Your task to perform on an android device: open device folders in google photos Image 0: 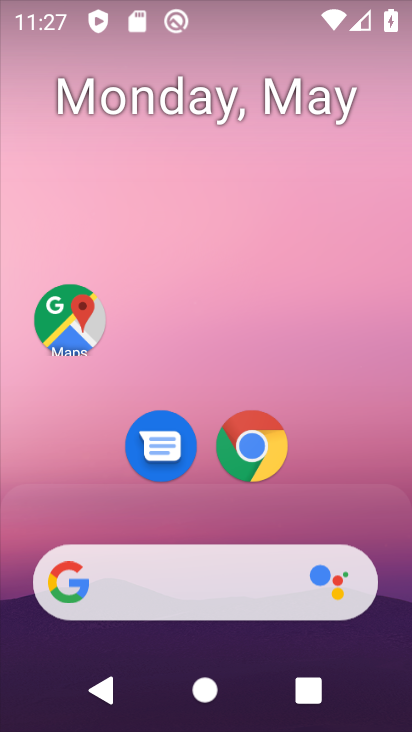
Step 0: drag from (354, 493) to (270, 47)
Your task to perform on an android device: open device folders in google photos Image 1: 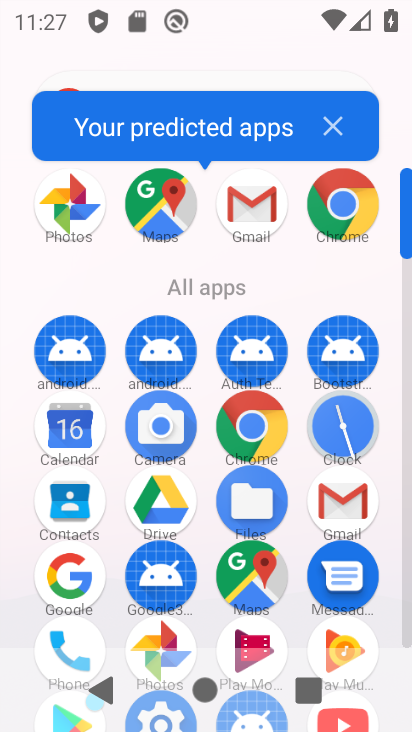
Step 1: click (69, 201)
Your task to perform on an android device: open device folders in google photos Image 2: 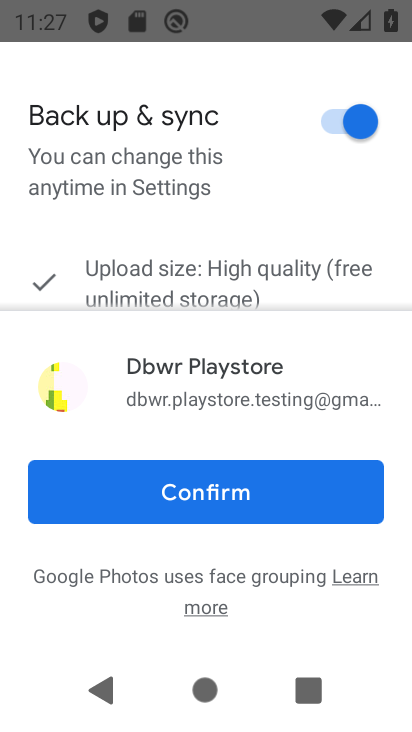
Step 2: click (234, 477)
Your task to perform on an android device: open device folders in google photos Image 3: 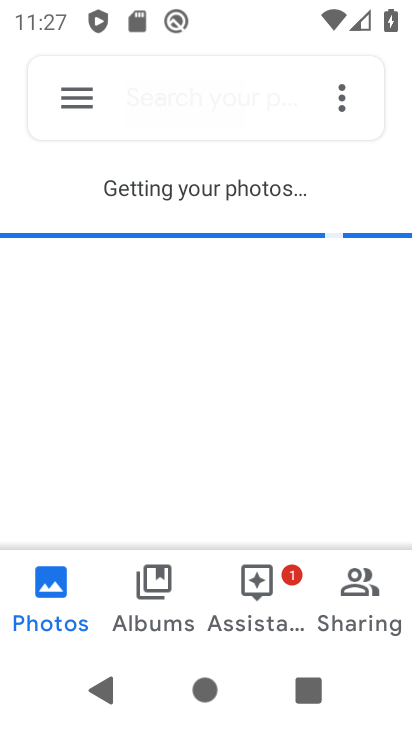
Step 3: click (75, 100)
Your task to perform on an android device: open device folders in google photos Image 4: 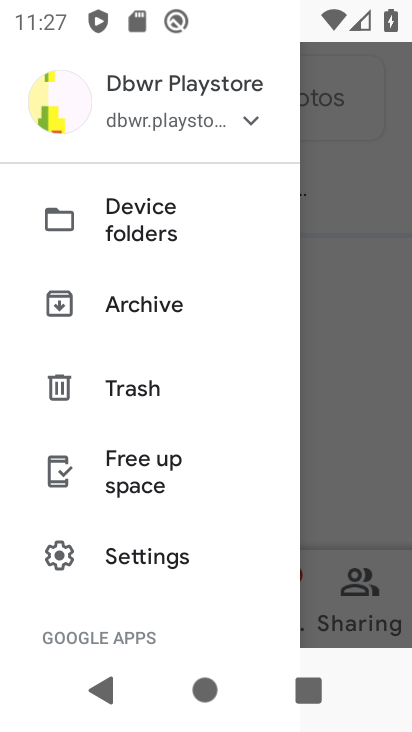
Step 4: click (128, 228)
Your task to perform on an android device: open device folders in google photos Image 5: 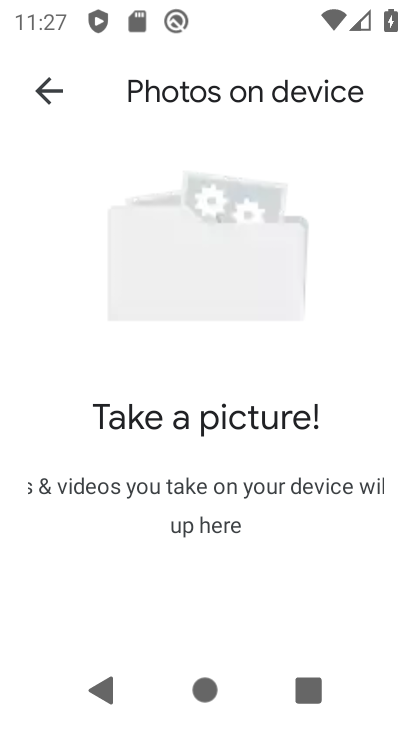
Step 5: task complete